Your task to perform on an android device: turn on showing notifications on the lock screen Image 0: 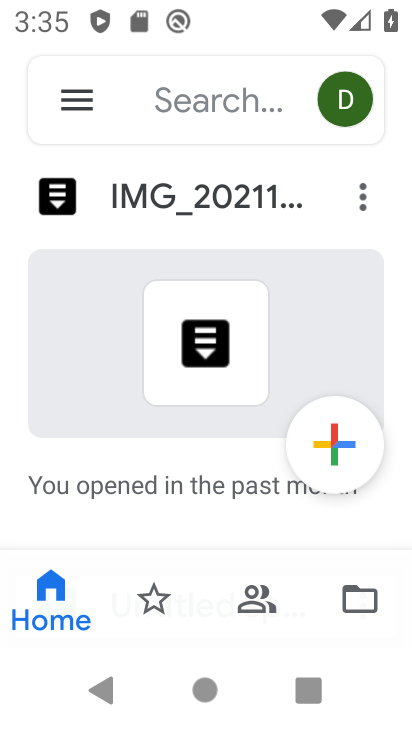
Step 0: press home button
Your task to perform on an android device: turn on showing notifications on the lock screen Image 1: 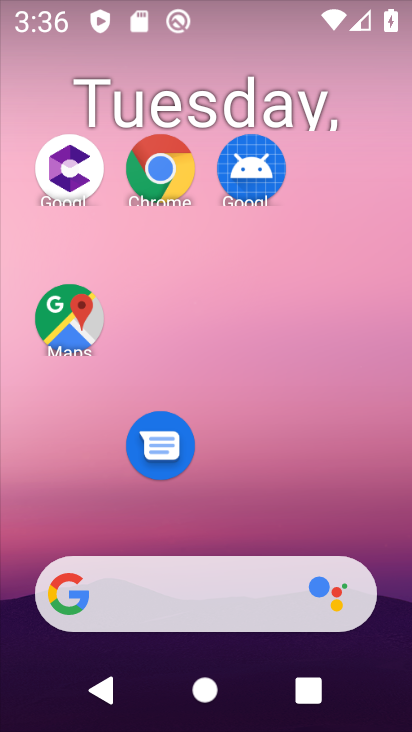
Step 1: drag from (276, 520) to (301, 14)
Your task to perform on an android device: turn on showing notifications on the lock screen Image 2: 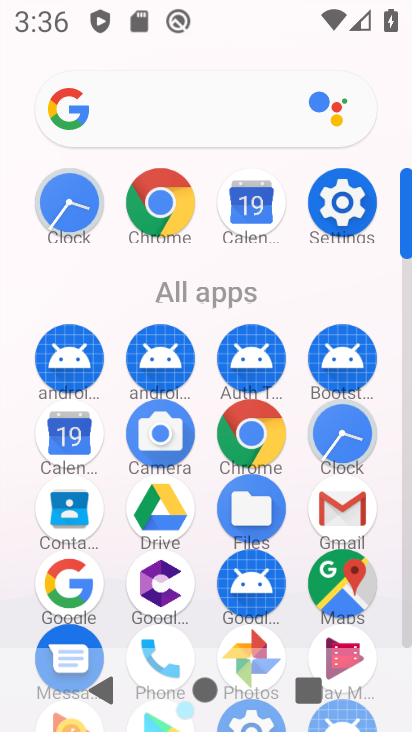
Step 2: click (344, 200)
Your task to perform on an android device: turn on showing notifications on the lock screen Image 3: 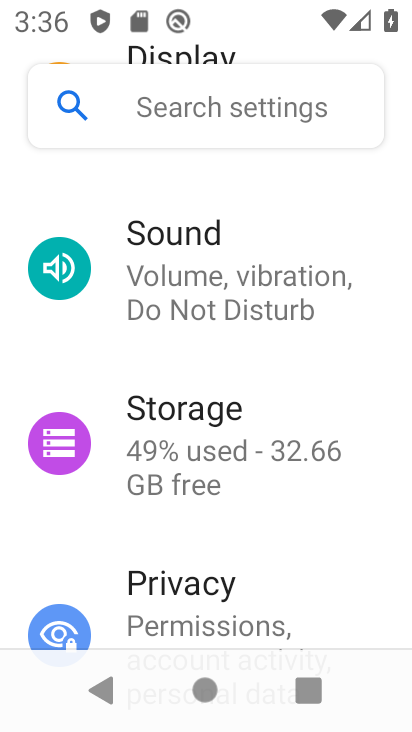
Step 3: drag from (268, 186) to (307, 626)
Your task to perform on an android device: turn on showing notifications on the lock screen Image 4: 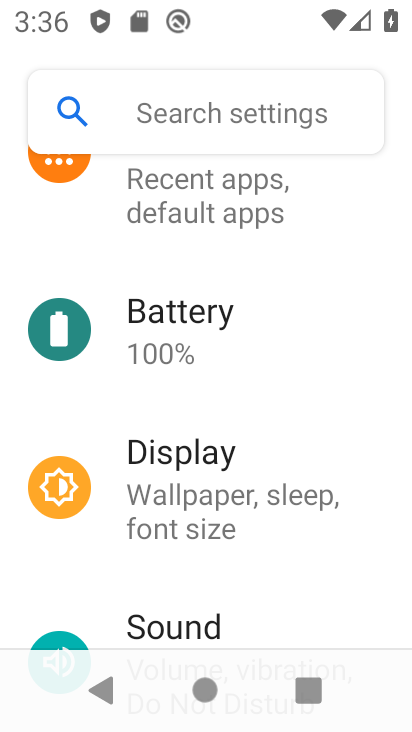
Step 4: drag from (283, 264) to (324, 532)
Your task to perform on an android device: turn on showing notifications on the lock screen Image 5: 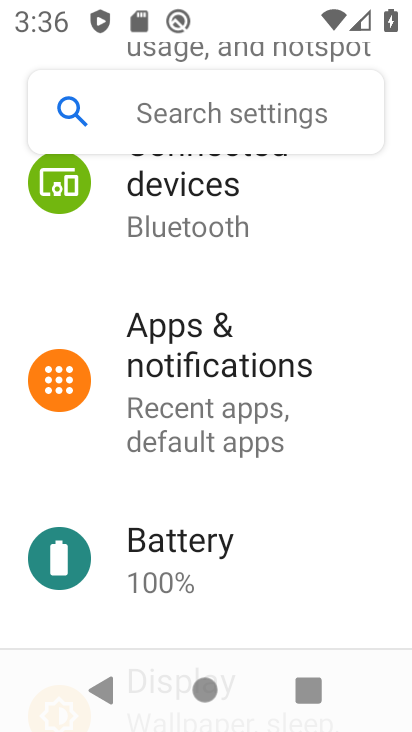
Step 5: click (190, 336)
Your task to perform on an android device: turn on showing notifications on the lock screen Image 6: 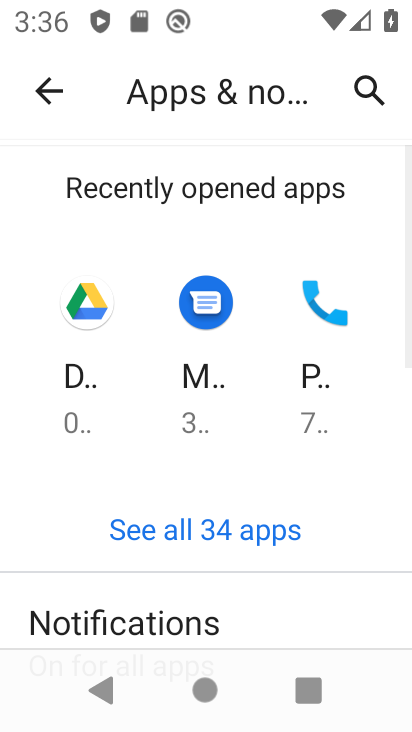
Step 6: drag from (353, 569) to (296, 112)
Your task to perform on an android device: turn on showing notifications on the lock screen Image 7: 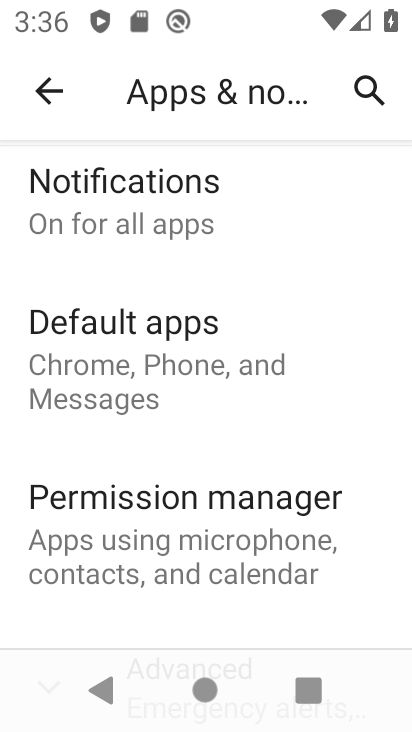
Step 7: click (101, 184)
Your task to perform on an android device: turn on showing notifications on the lock screen Image 8: 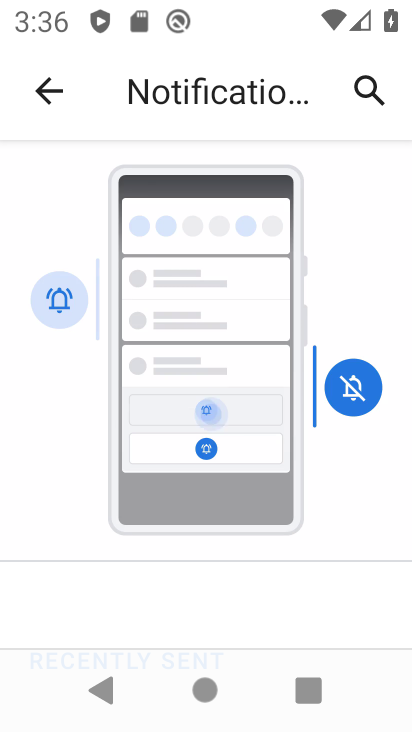
Step 8: drag from (161, 615) to (116, 104)
Your task to perform on an android device: turn on showing notifications on the lock screen Image 9: 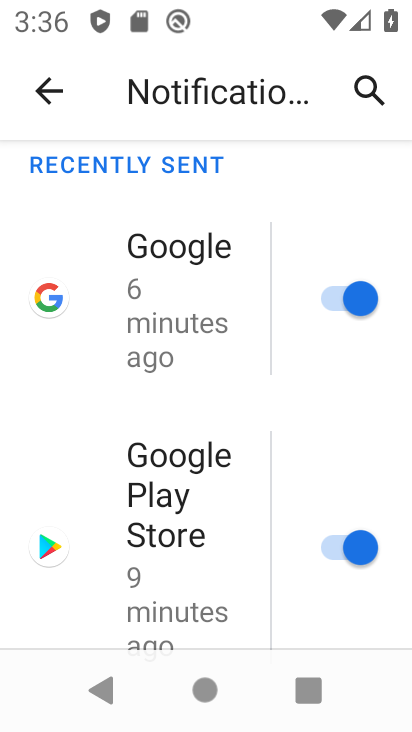
Step 9: drag from (215, 584) to (170, 119)
Your task to perform on an android device: turn on showing notifications on the lock screen Image 10: 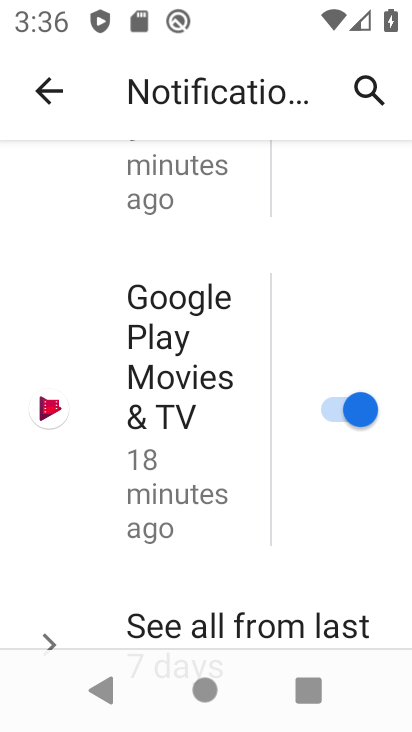
Step 10: drag from (230, 570) to (229, 112)
Your task to perform on an android device: turn on showing notifications on the lock screen Image 11: 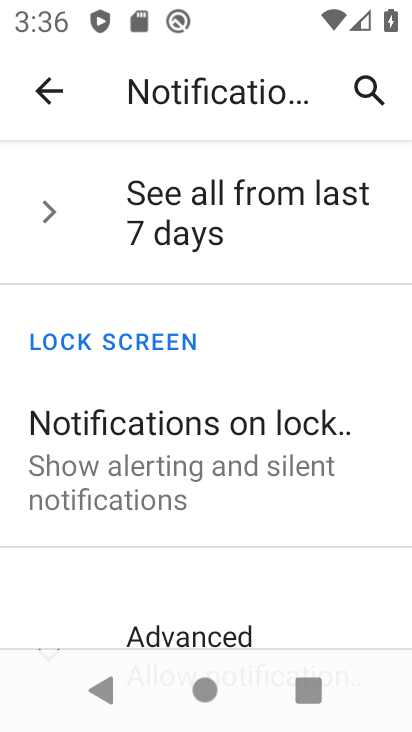
Step 11: click (172, 426)
Your task to perform on an android device: turn on showing notifications on the lock screen Image 12: 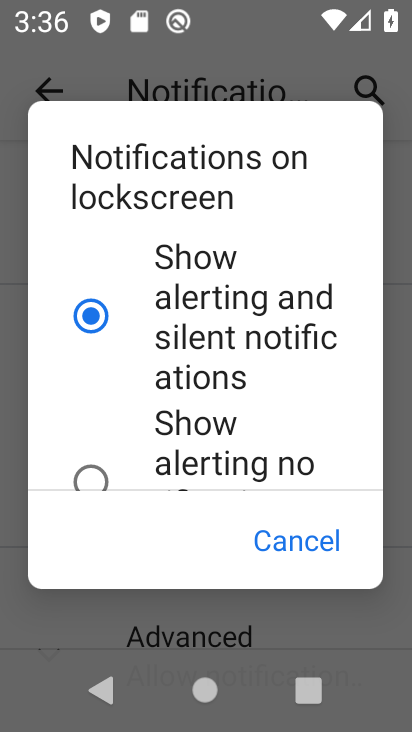
Step 12: task complete